Your task to perform on an android device: Open wifi settings Image 0: 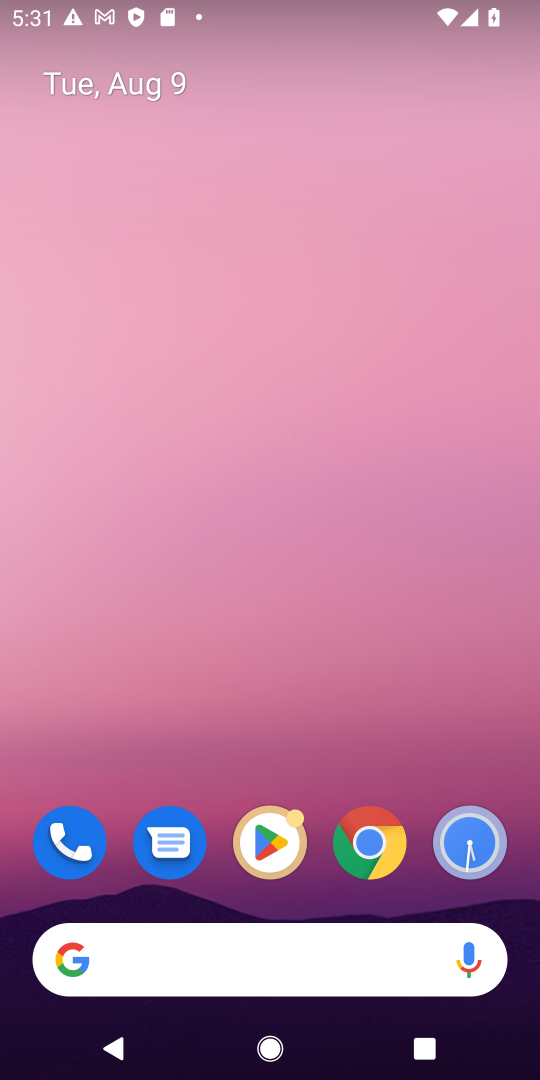
Step 0: drag from (226, 727) to (228, 2)
Your task to perform on an android device: Open wifi settings Image 1: 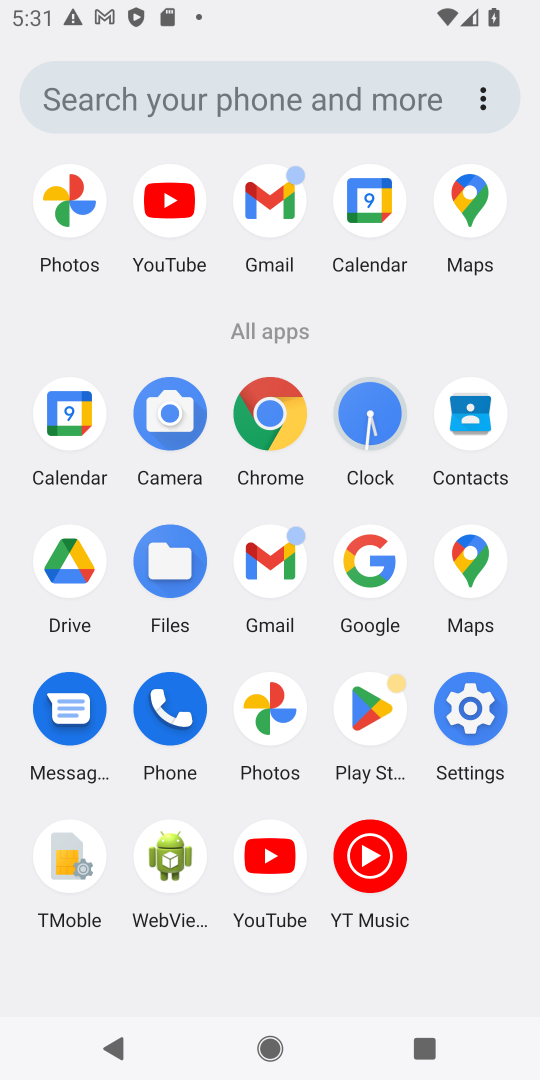
Step 1: click (472, 691)
Your task to perform on an android device: Open wifi settings Image 2: 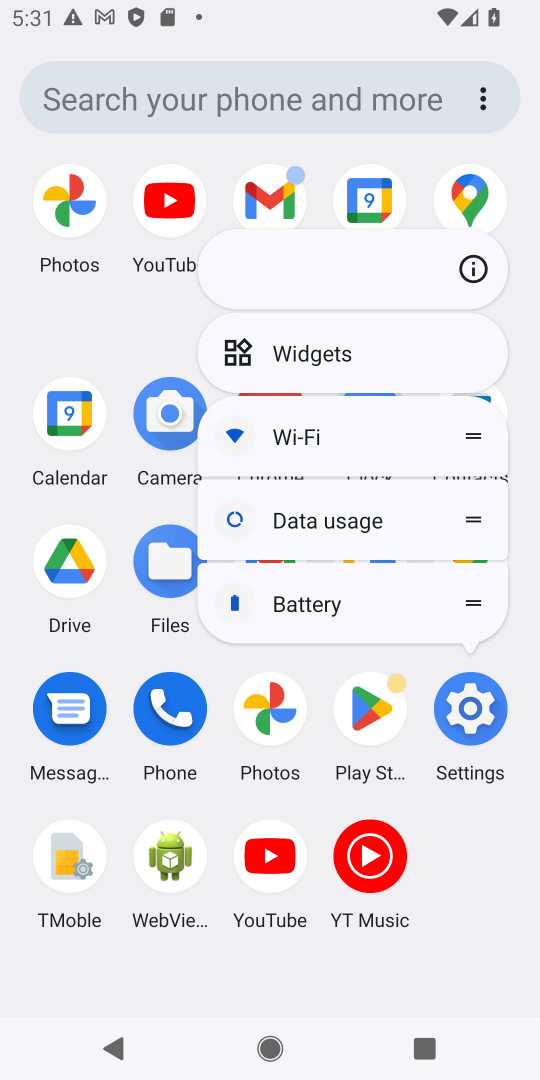
Step 2: click (472, 690)
Your task to perform on an android device: Open wifi settings Image 3: 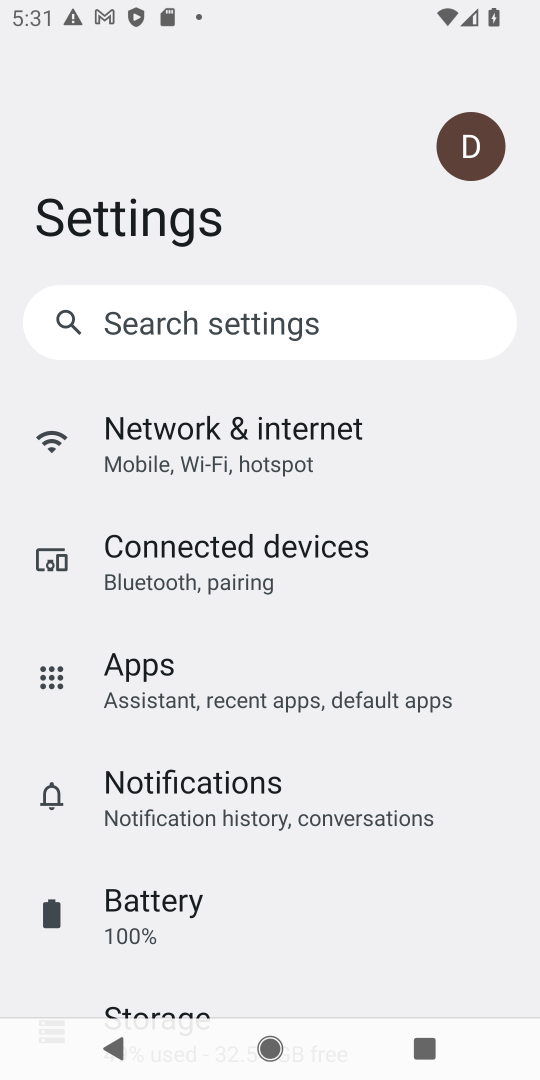
Step 3: click (265, 436)
Your task to perform on an android device: Open wifi settings Image 4: 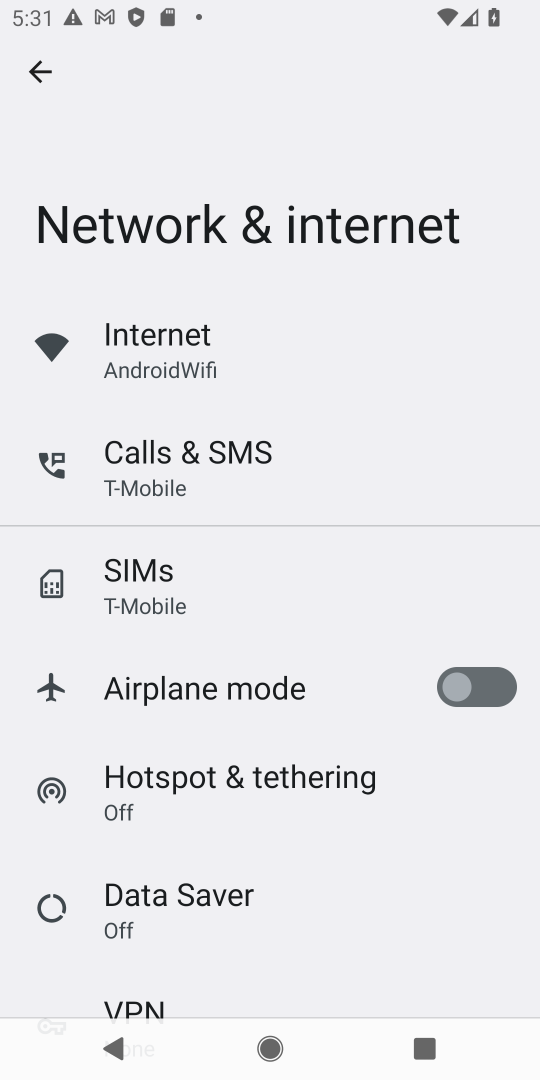
Step 4: click (125, 341)
Your task to perform on an android device: Open wifi settings Image 5: 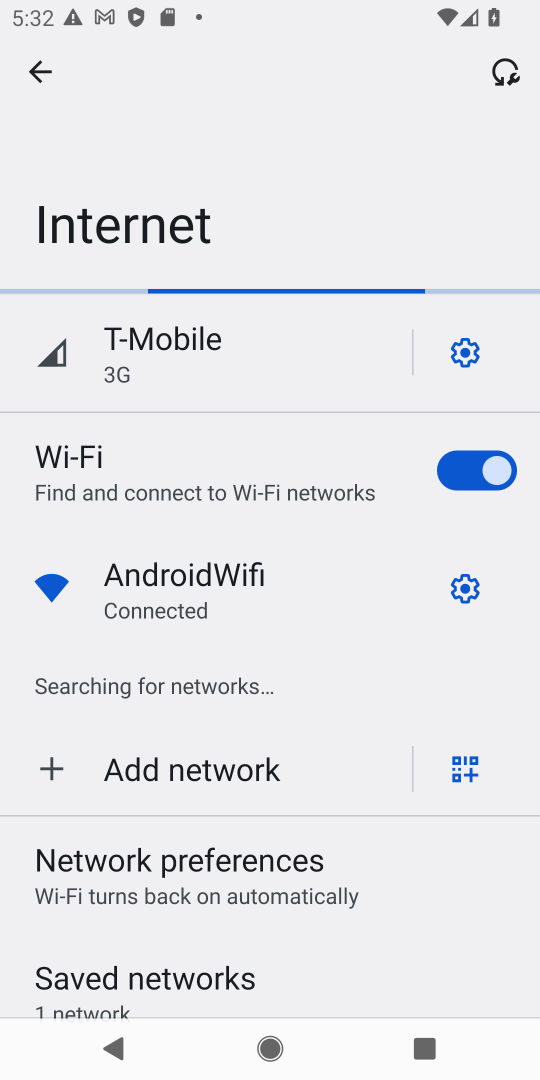
Step 5: click (127, 452)
Your task to perform on an android device: Open wifi settings Image 6: 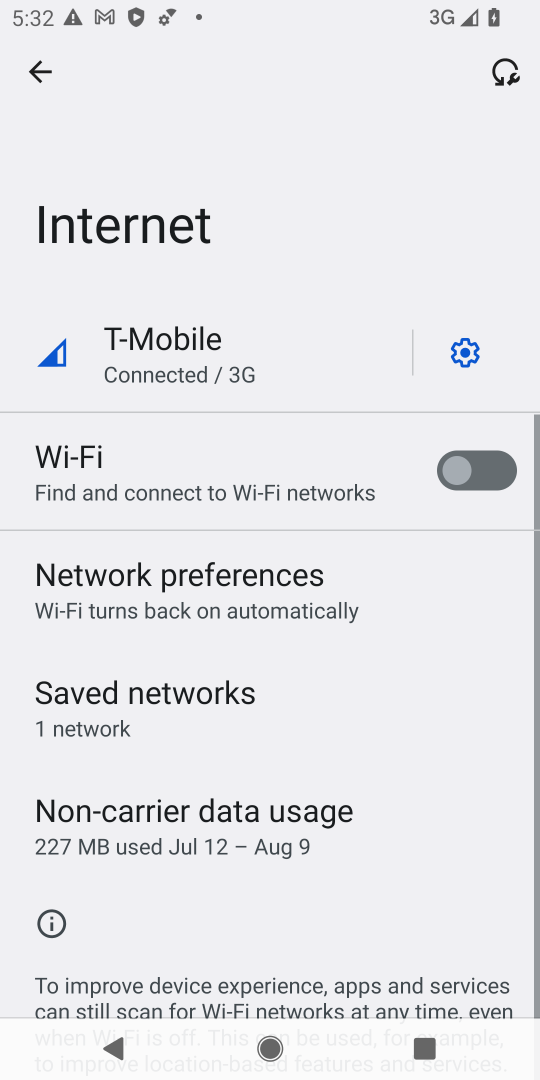
Step 6: click (127, 452)
Your task to perform on an android device: Open wifi settings Image 7: 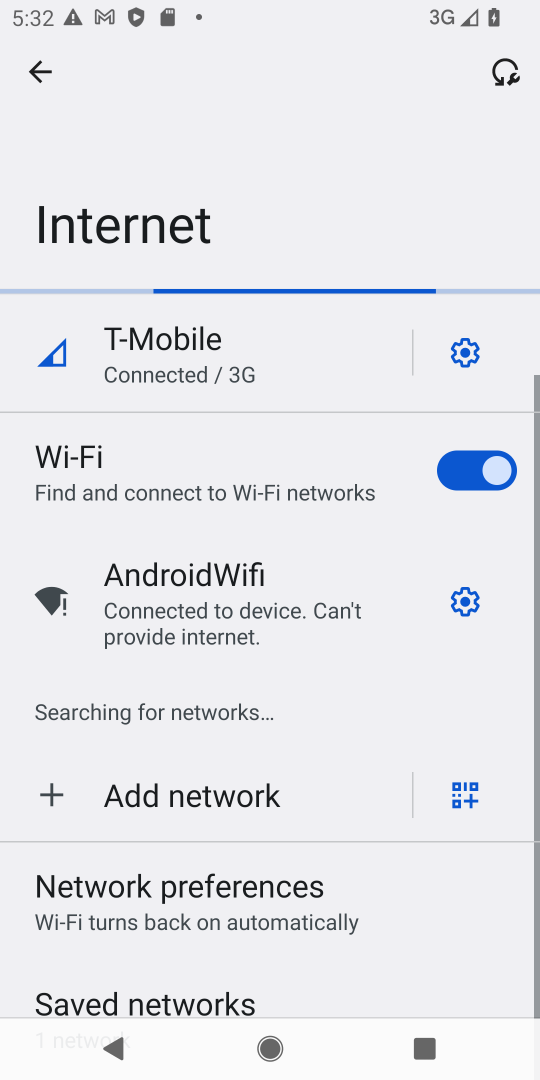
Step 7: task complete